Your task to perform on an android device: move an email to a new category in the gmail app Image 0: 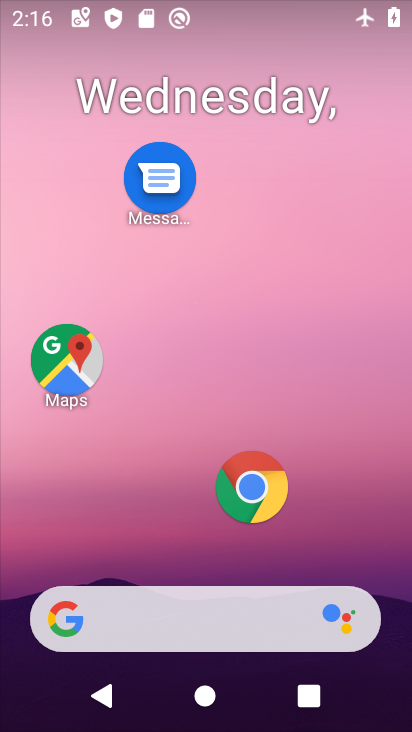
Step 0: drag from (216, 495) to (246, 89)
Your task to perform on an android device: move an email to a new category in the gmail app Image 1: 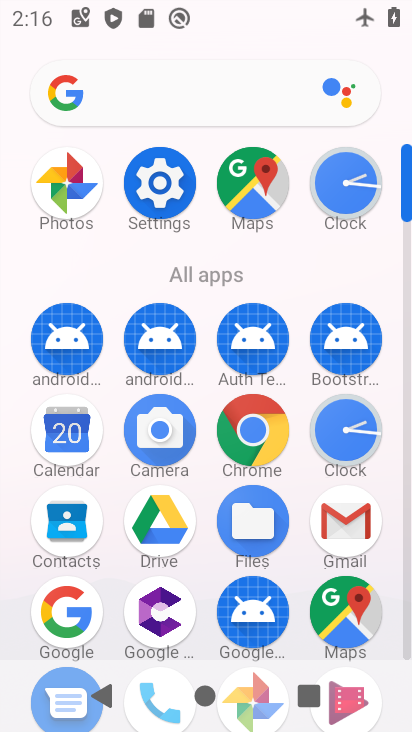
Step 1: click (349, 507)
Your task to perform on an android device: move an email to a new category in the gmail app Image 2: 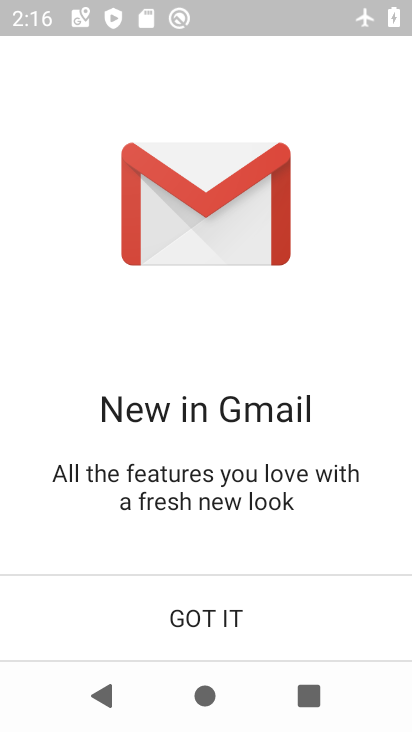
Step 2: click (208, 626)
Your task to perform on an android device: move an email to a new category in the gmail app Image 3: 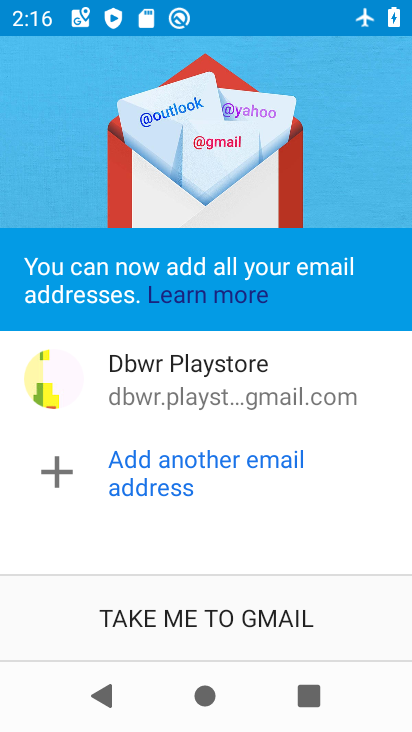
Step 3: click (229, 602)
Your task to perform on an android device: move an email to a new category in the gmail app Image 4: 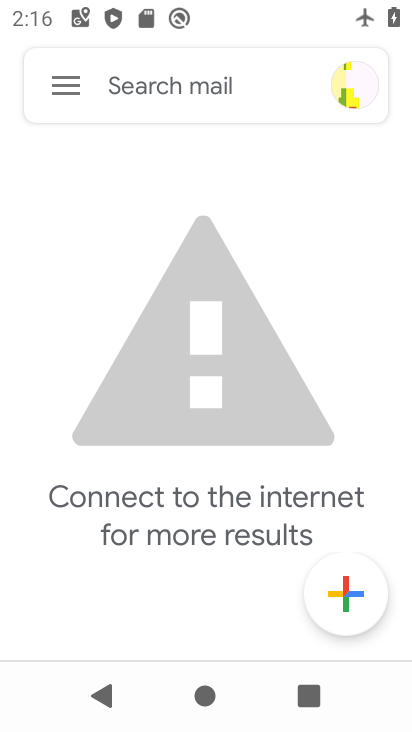
Step 4: click (74, 75)
Your task to perform on an android device: move an email to a new category in the gmail app Image 5: 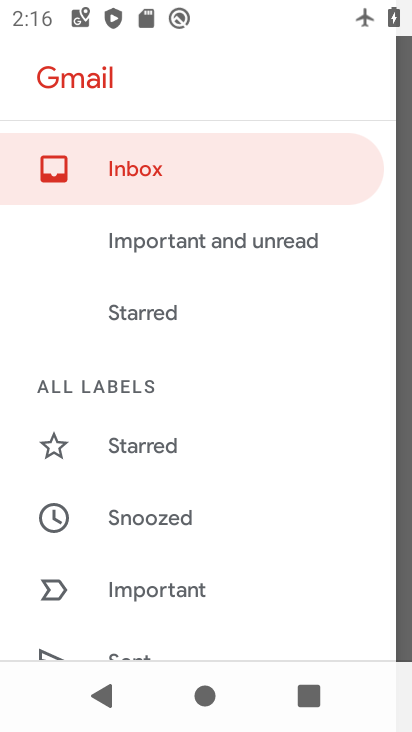
Step 5: drag from (237, 573) to (274, 309)
Your task to perform on an android device: move an email to a new category in the gmail app Image 6: 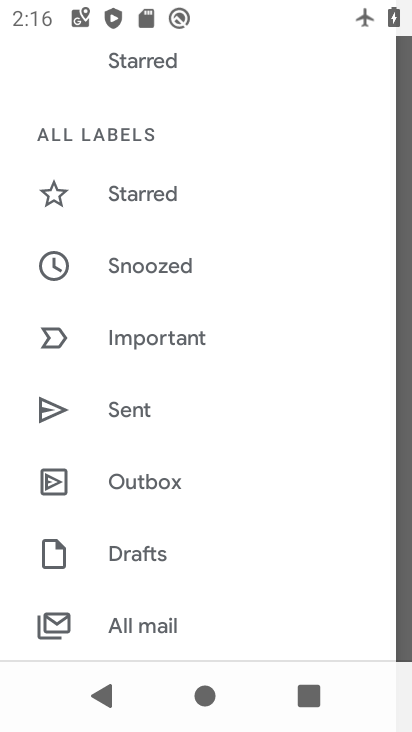
Step 6: click (177, 628)
Your task to perform on an android device: move an email to a new category in the gmail app Image 7: 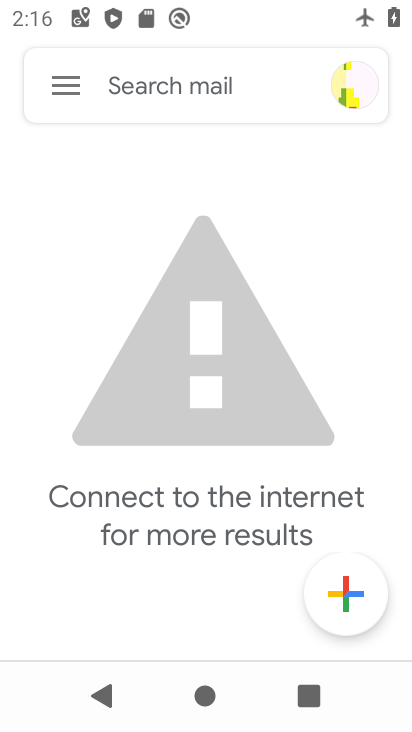
Step 7: task complete